Your task to perform on an android device: What's a good restaurant in Las Vegas? Image 0: 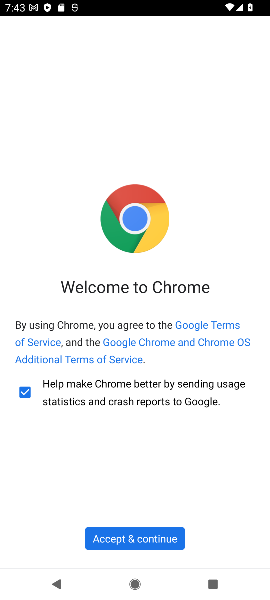
Step 0: press home button
Your task to perform on an android device: What's a good restaurant in Las Vegas? Image 1: 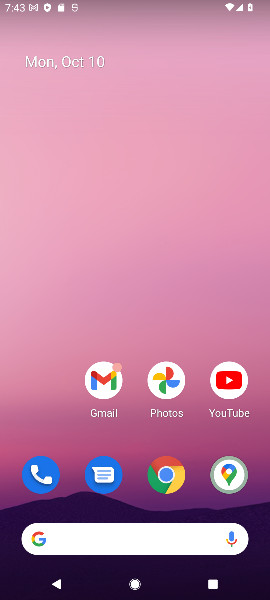
Step 1: click (161, 473)
Your task to perform on an android device: What's a good restaurant in Las Vegas? Image 2: 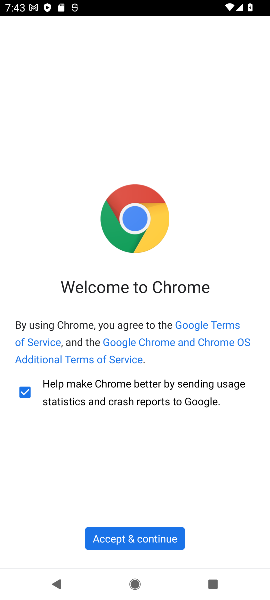
Step 2: click (144, 540)
Your task to perform on an android device: What's a good restaurant in Las Vegas? Image 3: 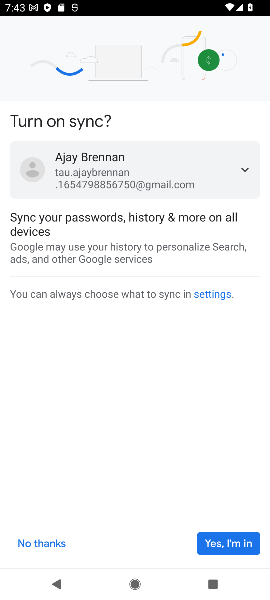
Step 3: click (219, 544)
Your task to perform on an android device: What's a good restaurant in Las Vegas? Image 4: 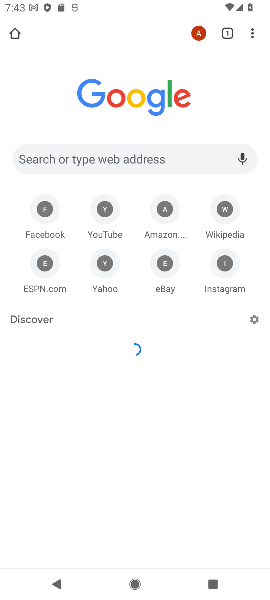
Step 4: click (219, 544)
Your task to perform on an android device: What's a good restaurant in Las Vegas? Image 5: 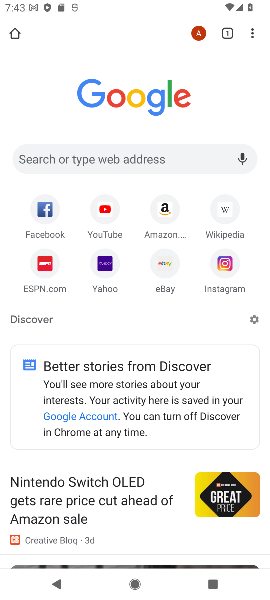
Step 5: click (138, 161)
Your task to perform on an android device: What's a good restaurant in Las Vegas? Image 6: 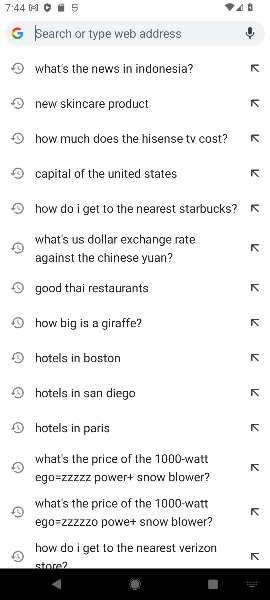
Step 6: type "What's a good restaurant in Las Vegas?"
Your task to perform on an android device: What's a good restaurant in Las Vegas? Image 7: 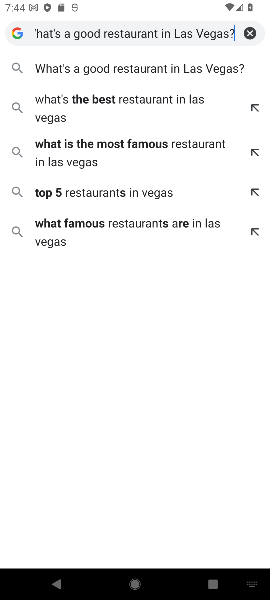
Step 7: click (126, 74)
Your task to perform on an android device: What's a good restaurant in Las Vegas? Image 8: 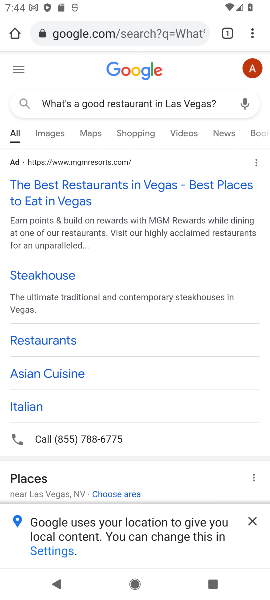
Step 8: click (131, 186)
Your task to perform on an android device: What's a good restaurant in Las Vegas? Image 9: 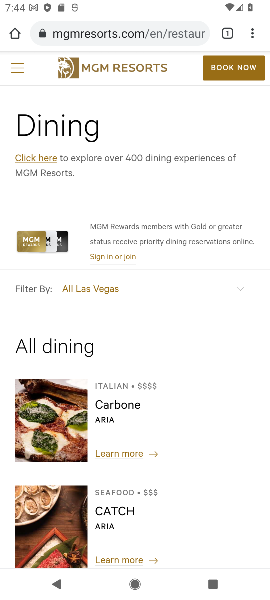
Step 9: task complete